Your task to perform on an android device: See recent photos Image 0: 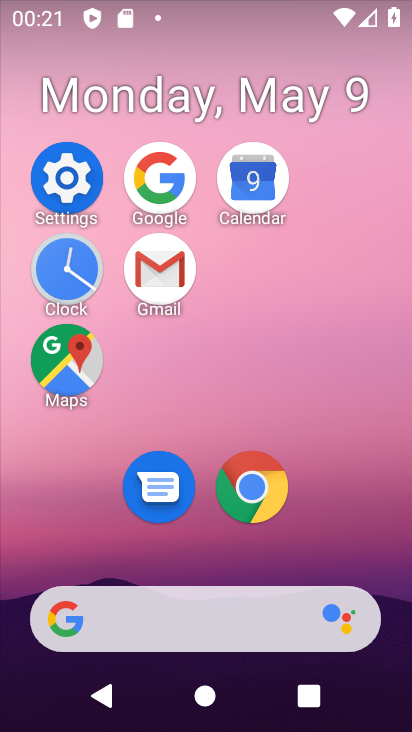
Step 0: drag from (324, 346) to (339, 113)
Your task to perform on an android device: See recent photos Image 1: 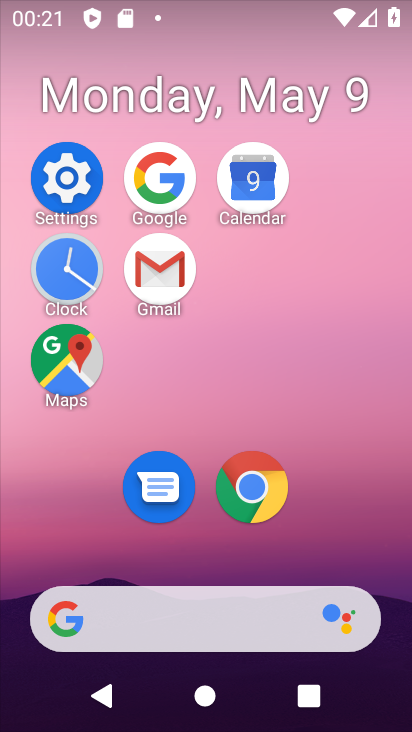
Step 1: drag from (228, 560) to (240, 124)
Your task to perform on an android device: See recent photos Image 2: 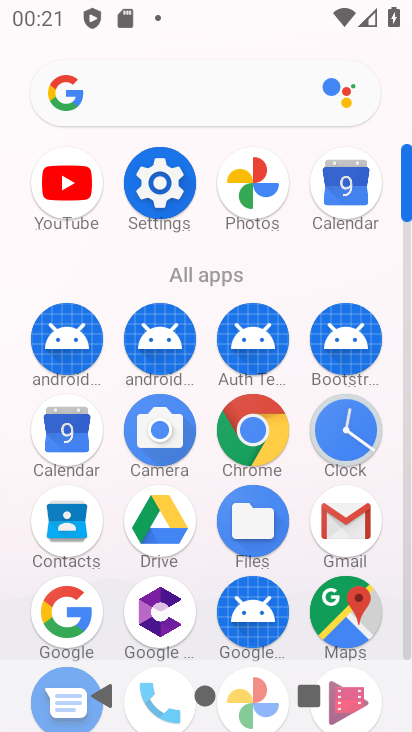
Step 2: drag from (266, 186) to (236, 265)
Your task to perform on an android device: See recent photos Image 3: 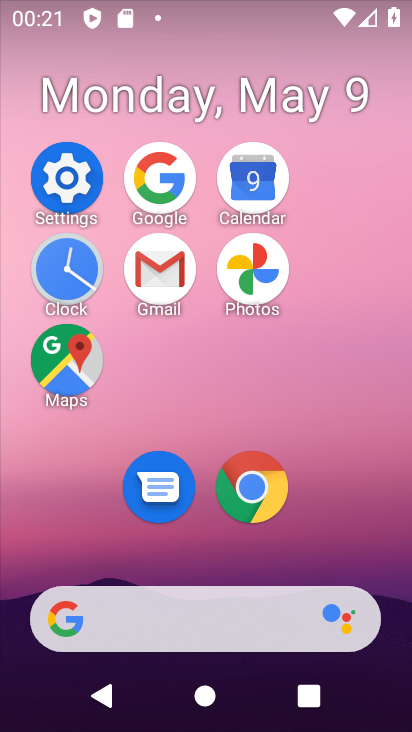
Step 3: click (250, 280)
Your task to perform on an android device: See recent photos Image 4: 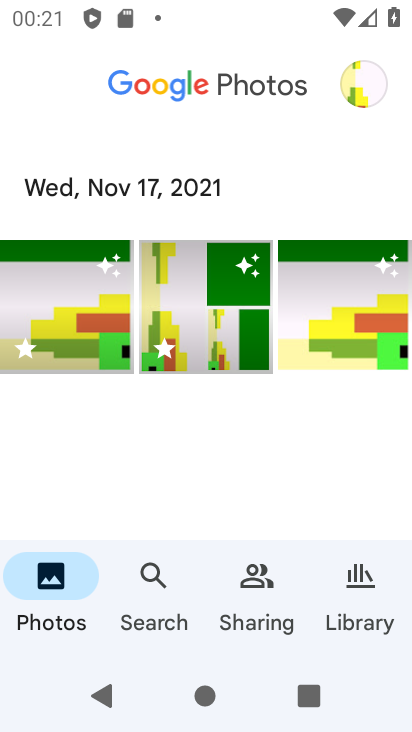
Step 4: click (65, 280)
Your task to perform on an android device: See recent photos Image 5: 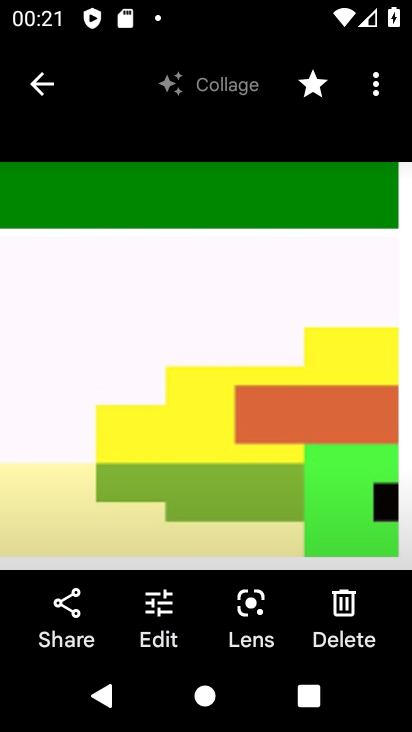
Step 5: task complete